Your task to perform on an android device: toggle location history Image 0: 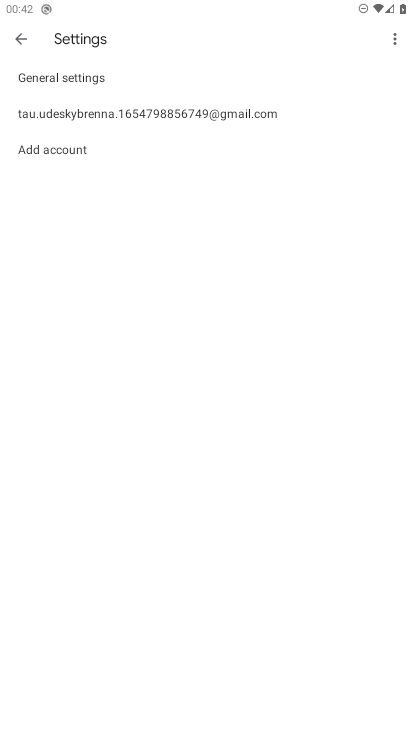
Step 0: press home button
Your task to perform on an android device: toggle location history Image 1: 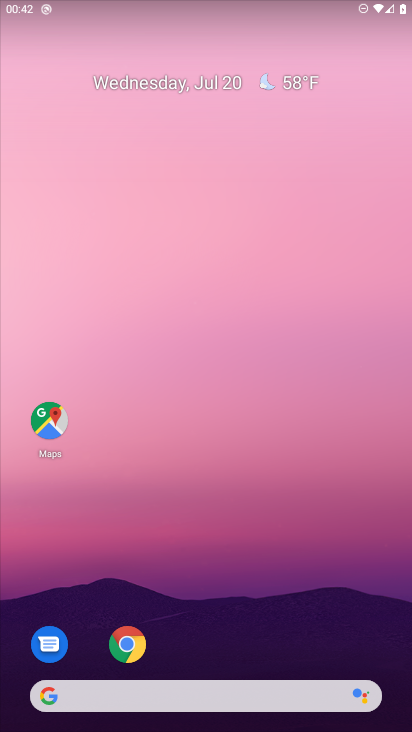
Step 1: drag from (76, 615) to (304, 181)
Your task to perform on an android device: toggle location history Image 2: 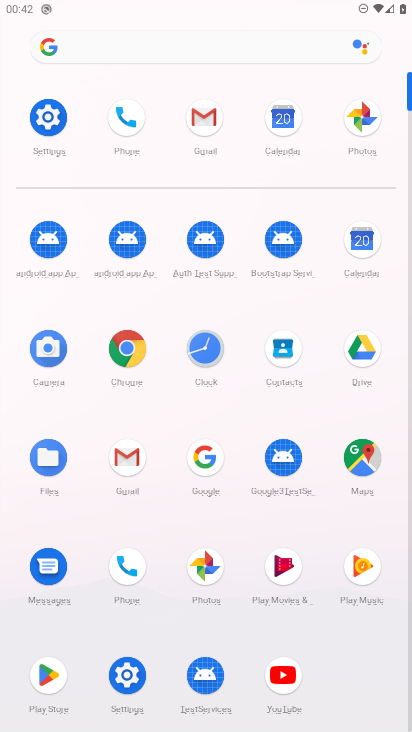
Step 2: click (110, 673)
Your task to perform on an android device: toggle location history Image 3: 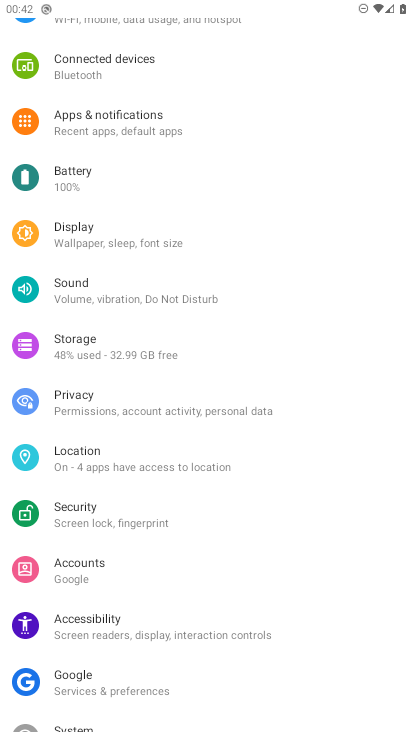
Step 3: click (132, 454)
Your task to perform on an android device: toggle location history Image 4: 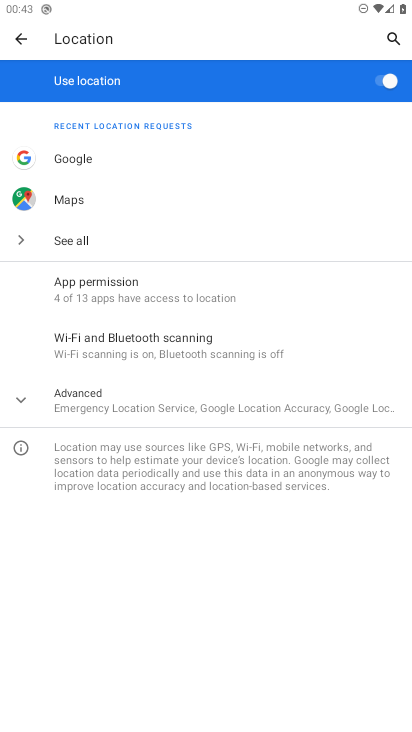
Step 4: click (116, 396)
Your task to perform on an android device: toggle location history Image 5: 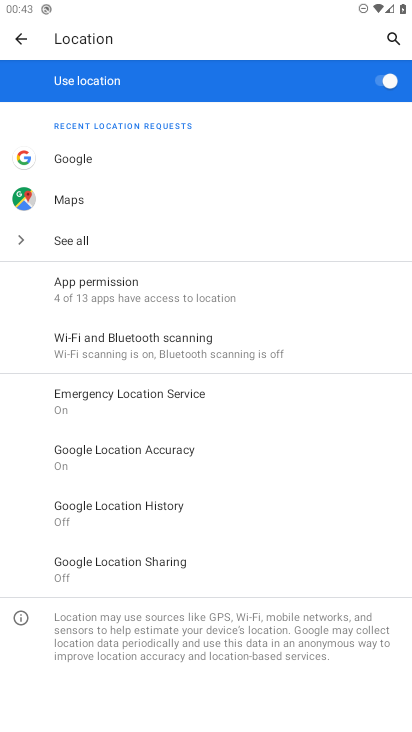
Step 5: click (139, 513)
Your task to perform on an android device: toggle location history Image 6: 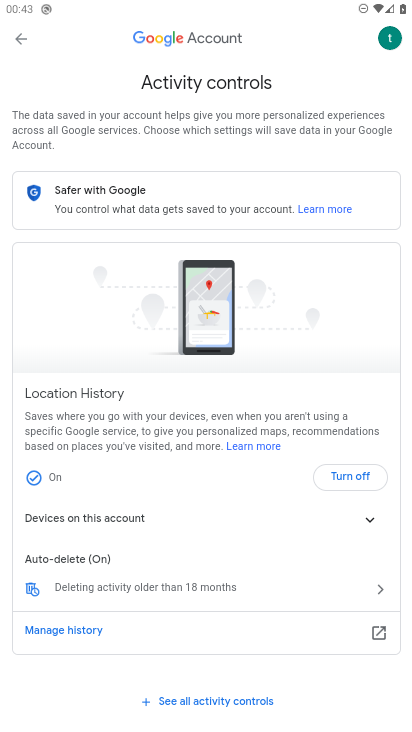
Step 6: task complete